Your task to perform on an android device: open the mobile data screen to see how much data has been used Image 0: 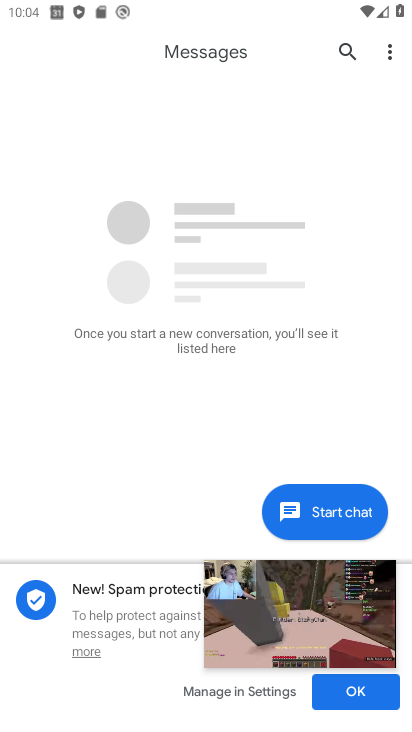
Step 0: click (303, 606)
Your task to perform on an android device: open the mobile data screen to see how much data has been used Image 1: 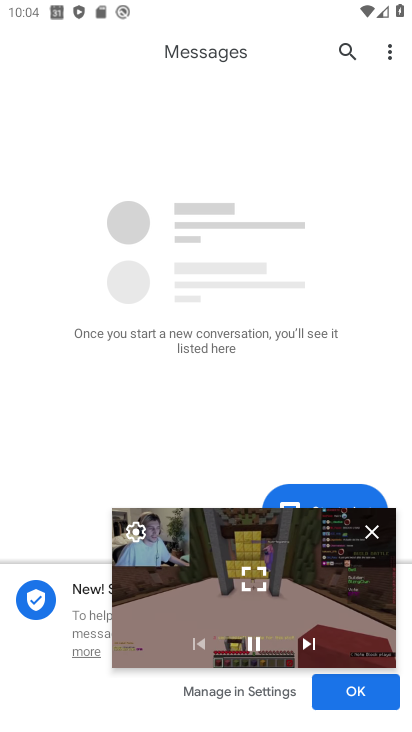
Step 1: click (368, 524)
Your task to perform on an android device: open the mobile data screen to see how much data has been used Image 2: 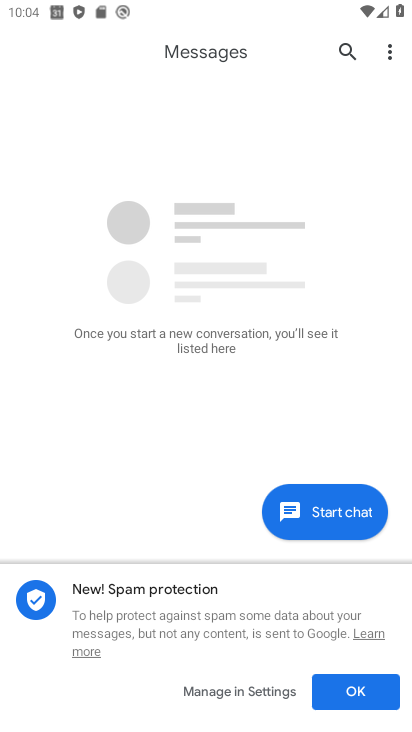
Step 2: press home button
Your task to perform on an android device: open the mobile data screen to see how much data has been used Image 3: 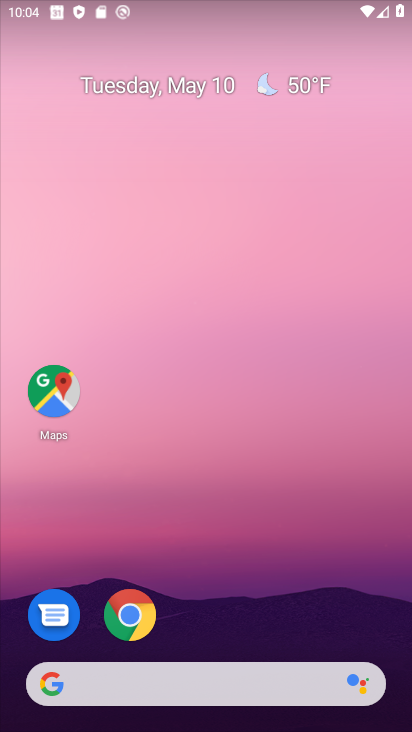
Step 3: drag from (215, 629) to (244, 159)
Your task to perform on an android device: open the mobile data screen to see how much data has been used Image 4: 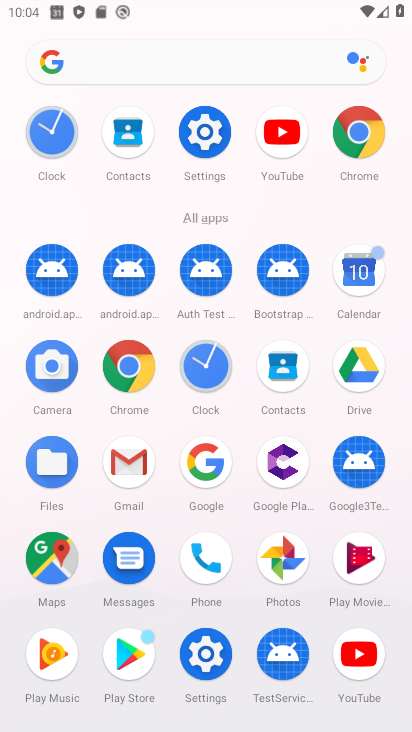
Step 4: click (204, 129)
Your task to perform on an android device: open the mobile data screen to see how much data has been used Image 5: 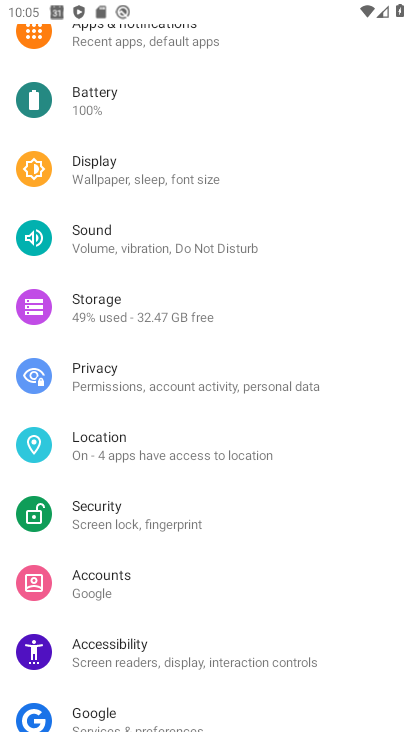
Step 5: drag from (142, 130) to (157, 565)
Your task to perform on an android device: open the mobile data screen to see how much data has been used Image 6: 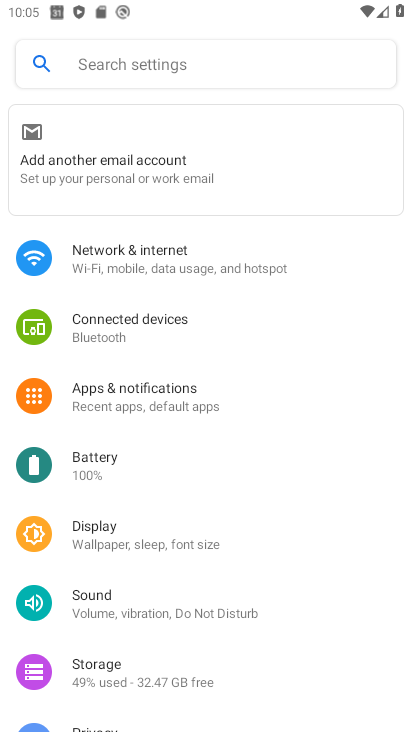
Step 6: click (206, 253)
Your task to perform on an android device: open the mobile data screen to see how much data has been used Image 7: 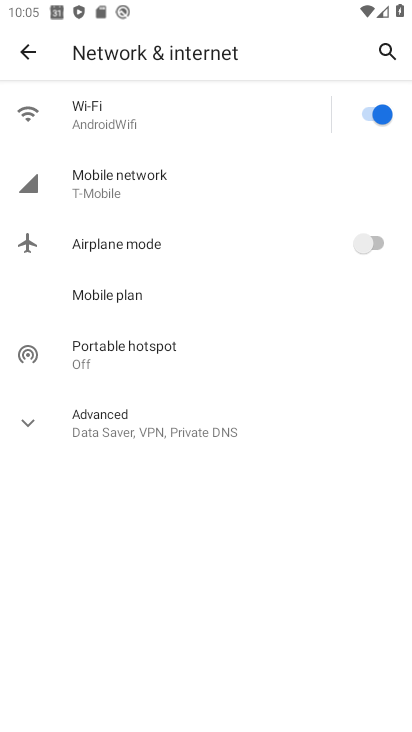
Step 7: click (133, 192)
Your task to perform on an android device: open the mobile data screen to see how much data has been used Image 8: 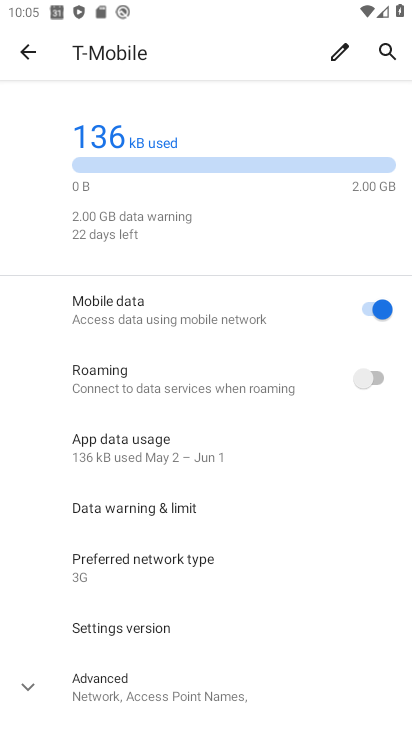
Step 8: click (181, 436)
Your task to perform on an android device: open the mobile data screen to see how much data has been used Image 9: 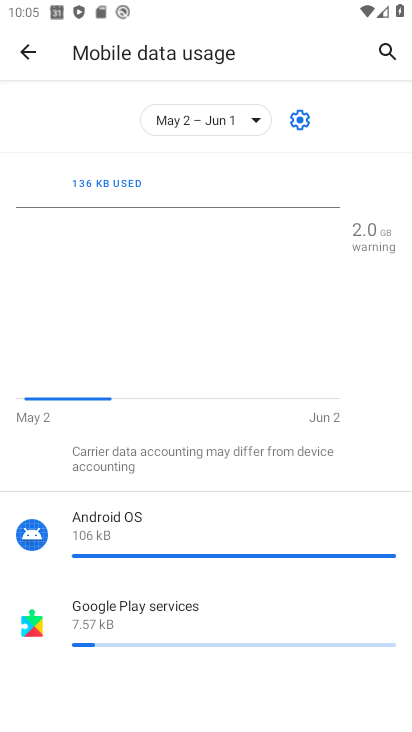
Step 9: task complete